Your task to perform on an android device: change your default location settings in chrome Image 0: 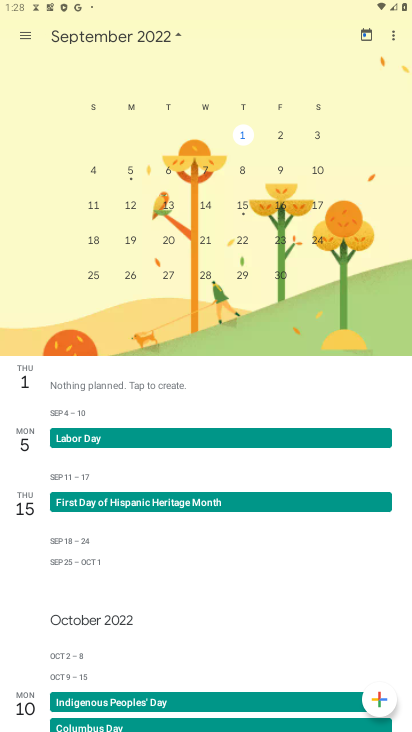
Step 0: press home button
Your task to perform on an android device: change your default location settings in chrome Image 1: 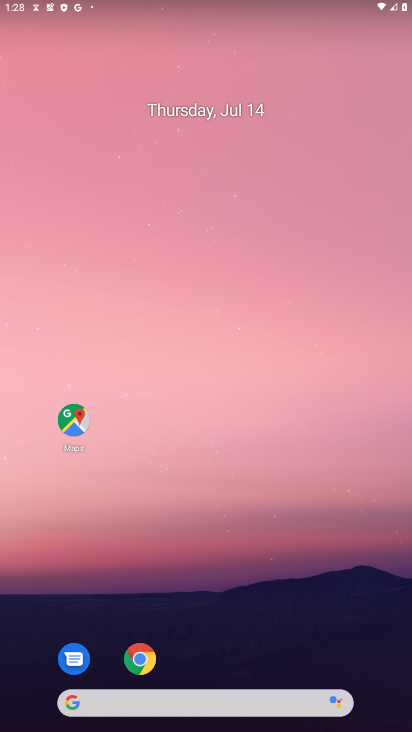
Step 1: click (136, 663)
Your task to perform on an android device: change your default location settings in chrome Image 2: 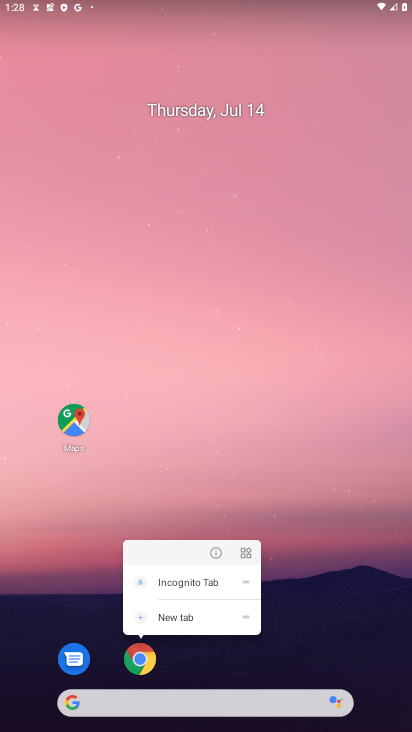
Step 2: click (137, 655)
Your task to perform on an android device: change your default location settings in chrome Image 3: 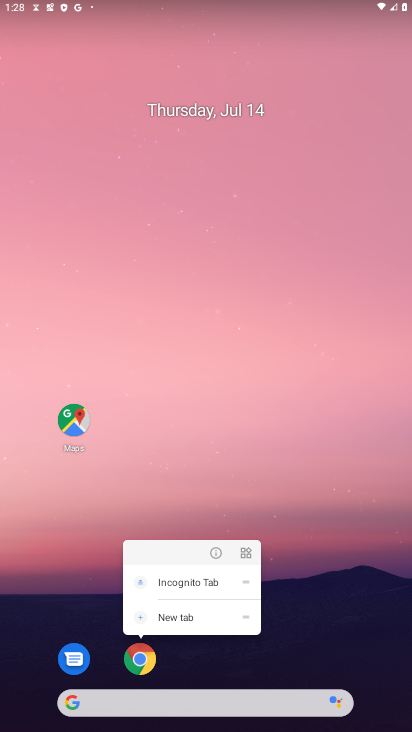
Step 3: task complete